Your task to perform on an android device: Show me the alarms in the clock app Image 0: 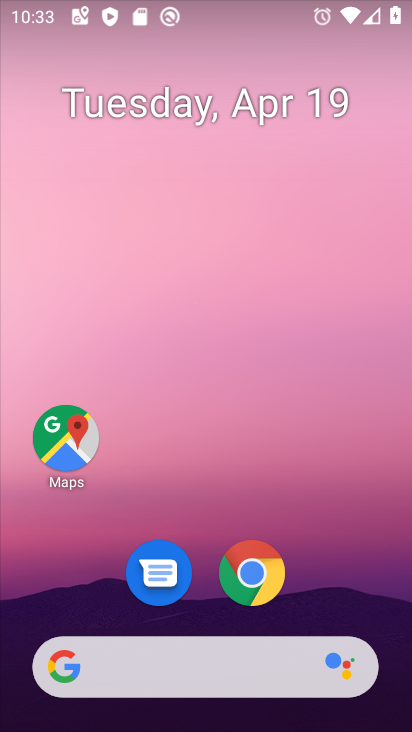
Step 0: click (245, 153)
Your task to perform on an android device: Show me the alarms in the clock app Image 1: 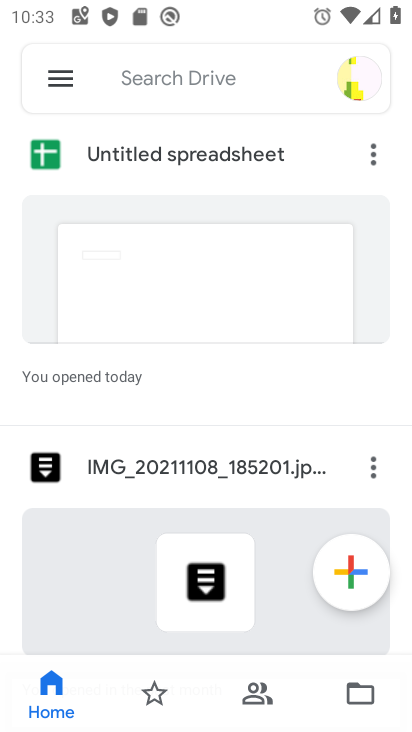
Step 1: press home button
Your task to perform on an android device: Show me the alarms in the clock app Image 2: 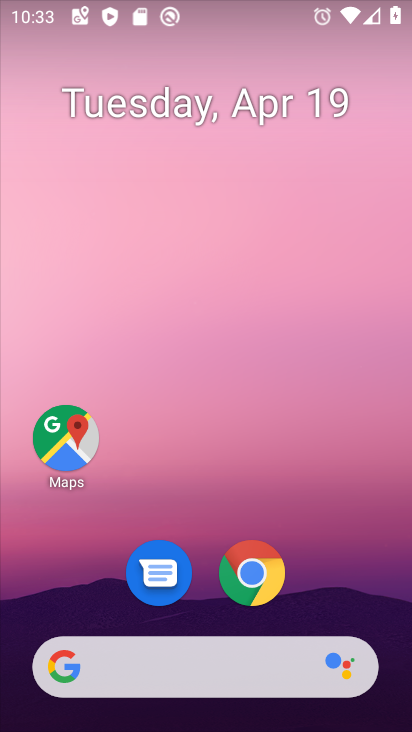
Step 2: drag from (320, 534) to (298, 118)
Your task to perform on an android device: Show me the alarms in the clock app Image 3: 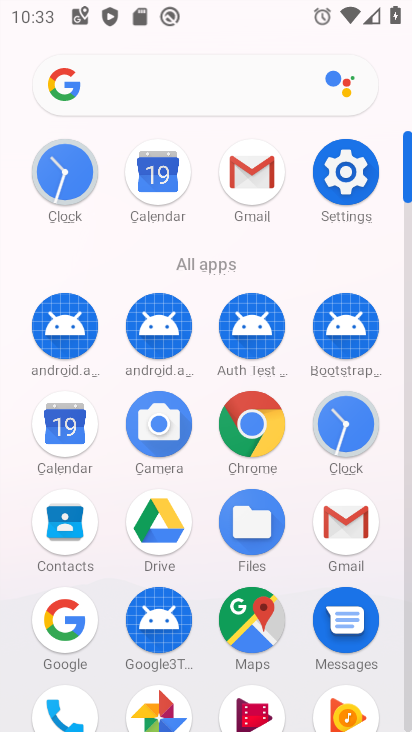
Step 3: click (337, 445)
Your task to perform on an android device: Show me the alarms in the clock app Image 4: 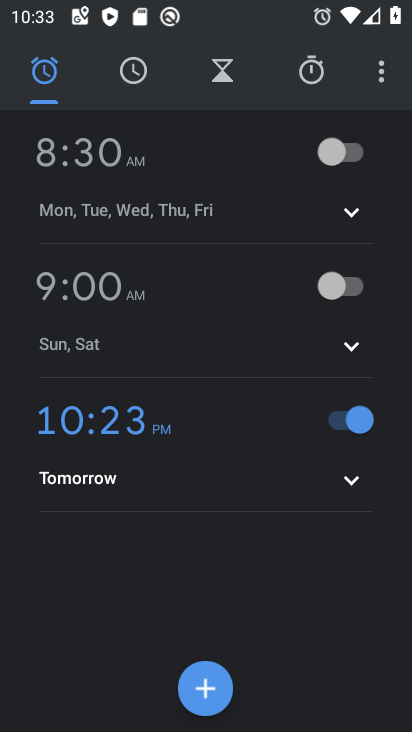
Step 4: task complete